Your task to perform on an android device: Go to network settings Image 0: 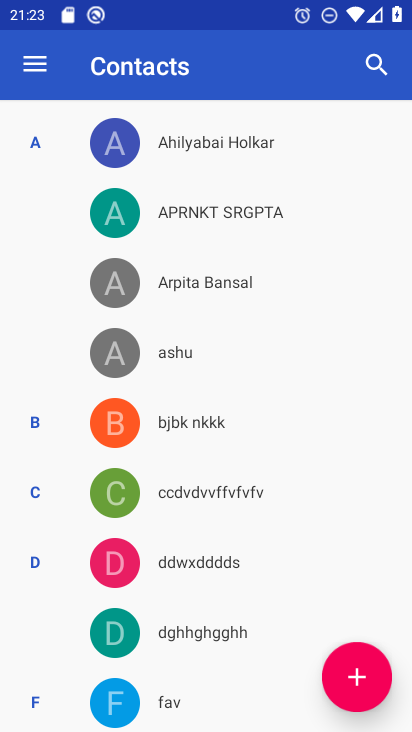
Step 0: press home button
Your task to perform on an android device: Go to network settings Image 1: 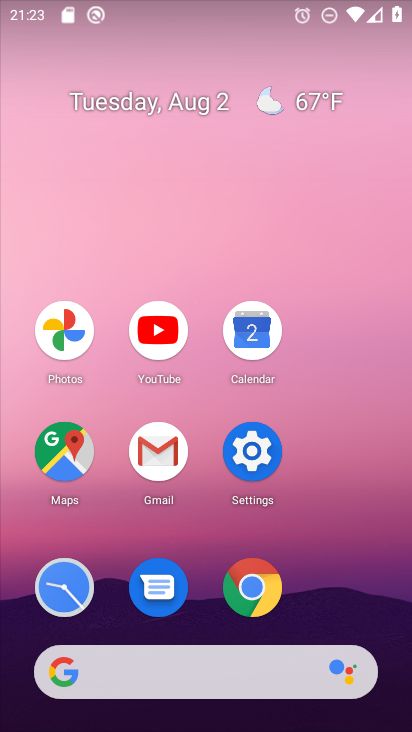
Step 1: click (257, 454)
Your task to perform on an android device: Go to network settings Image 2: 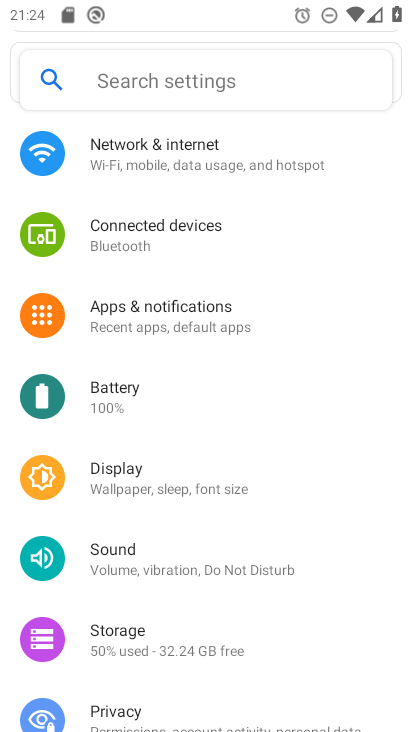
Step 2: click (165, 147)
Your task to perform on an android device: Go to network settings Image 3: 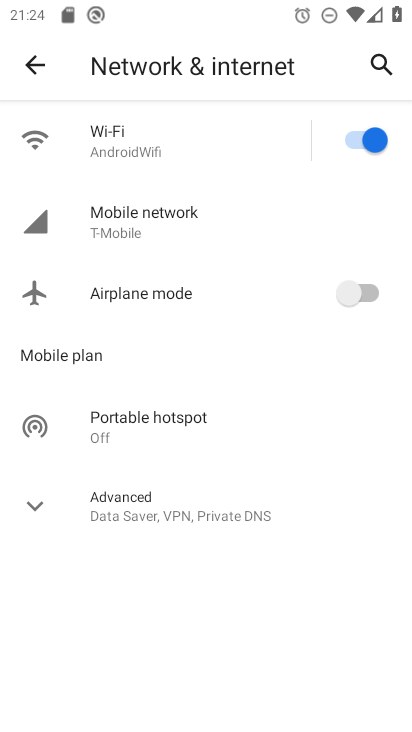
Step 3: click (146, 214)
Your task to perform on an android device: Go to network settings Image 4: 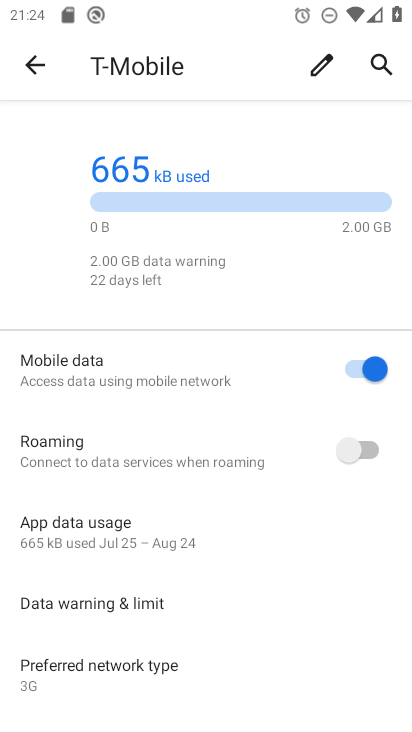
Step 4: click (22, 69)
Your task to perform on an android device: Go to network settings Image 5: 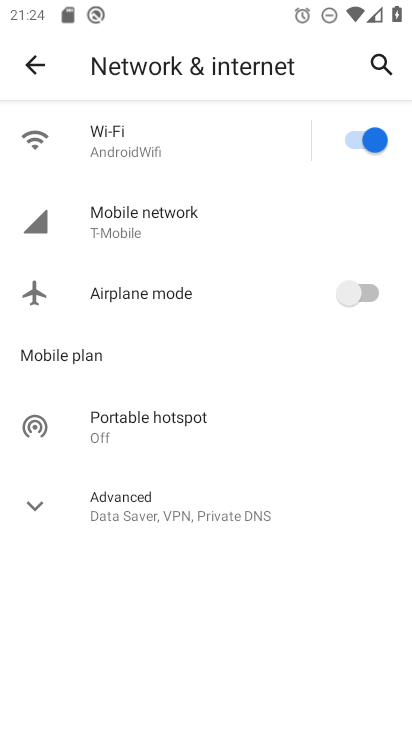
Step 5: task complete